Your task to perform on an android device: toggle show notifications on the lock screen Image 0: 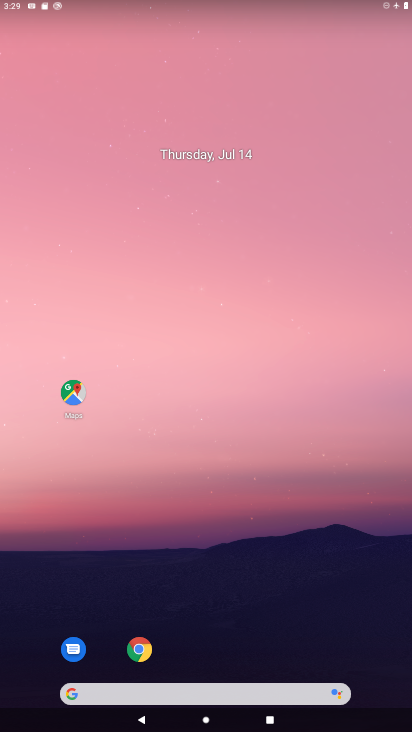
Step 0: drag from (243, 617) to (202, 234)
Your task to perform on an android device: toggle show notifications on the lock screen Image 1: 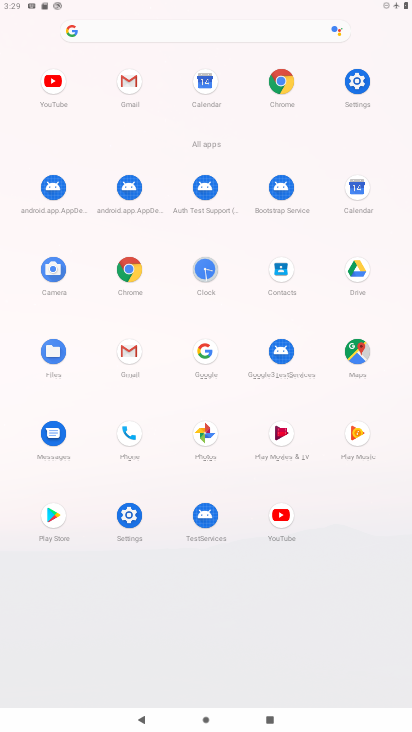
Step 1: click (352, 87)
Your task to perform on an android device: toggle show notifications on the lock screen Image 2: 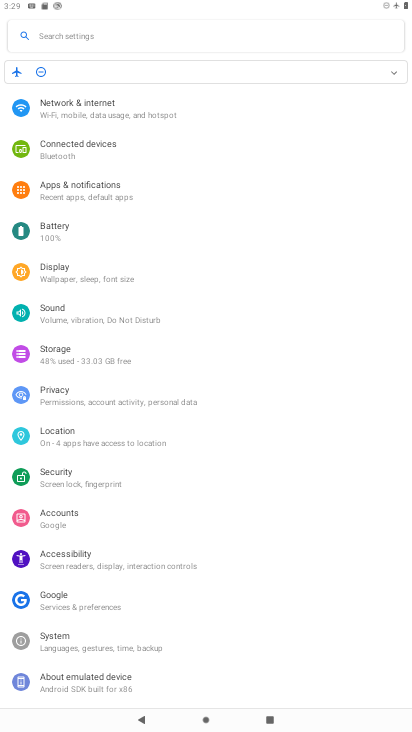
Step 2: click (104, 186)
Your task to perform on an android device: toggle show notifications on the lock screen Image 3: 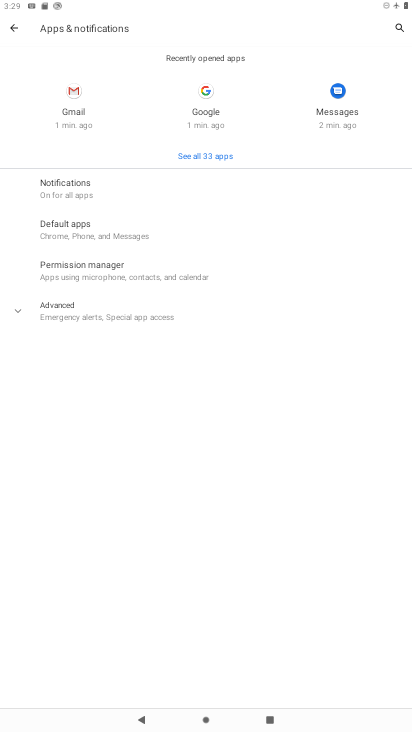
Step 3: click (104, 194)
Your task to perform on an android device: toggle show notifications on the lock screen Image 4: 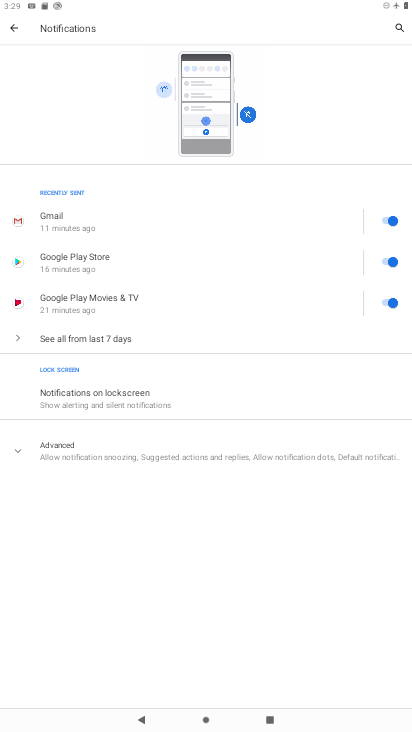
Step 4: click (135, 394)
Your task to perform on an android device: toggle show notifications on the lock screen Image 5: 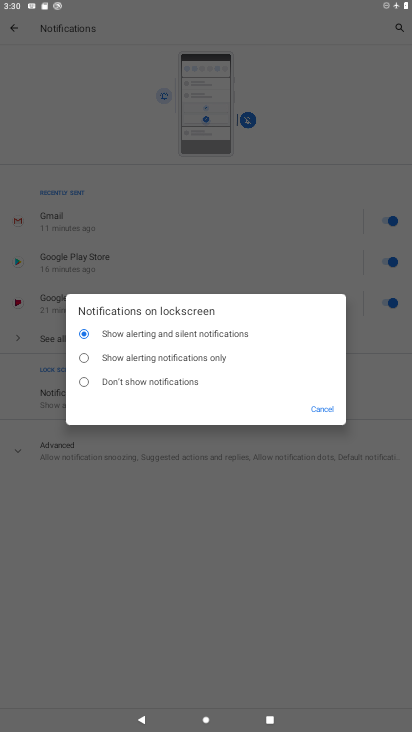
Step 5: click (139, 377)
Your task to perform on an android device: toggle show notifications on the lock screen Image 6: 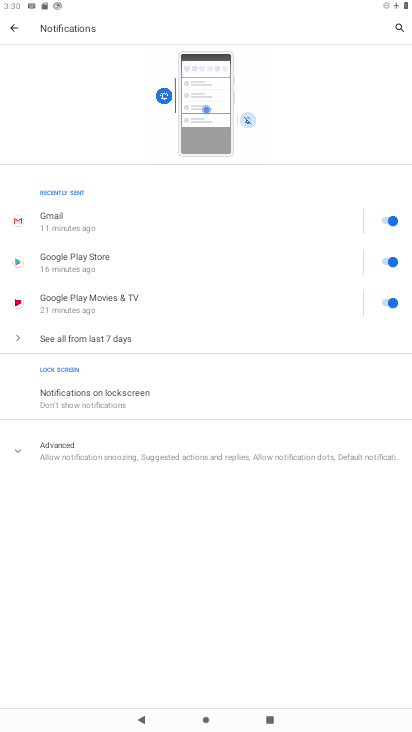
Step 6: task complete